Your task to perform on an android device: Open Yahoo.com Image 0: 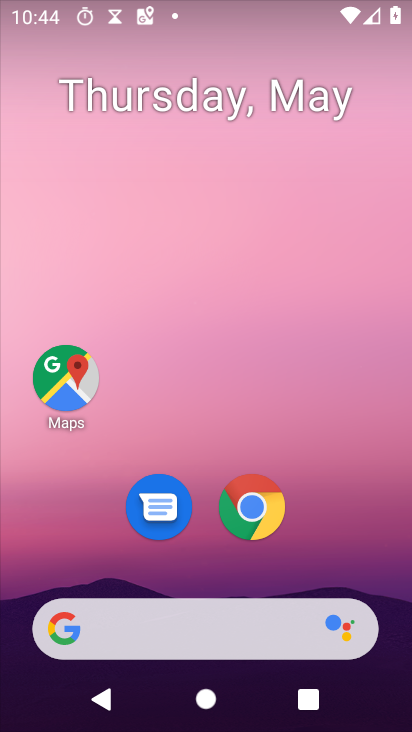
Step 0: click (257, 515)
Your task to perform on an android device: Open Yahoo.com Image 1: 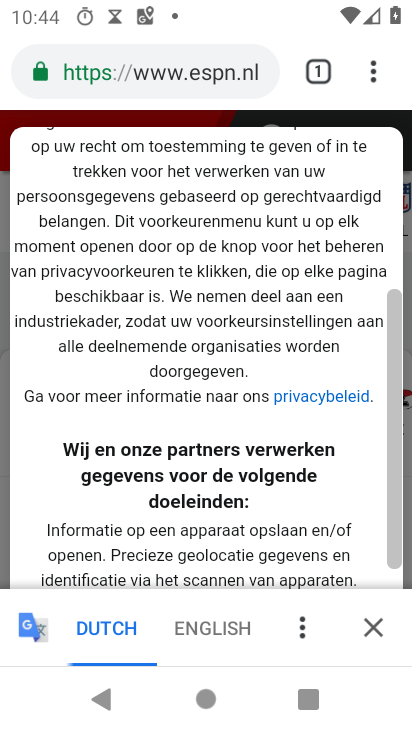
Step 1: click (307, 84)
Your task to perform on an android device: Open Yahoo.com Image 2: 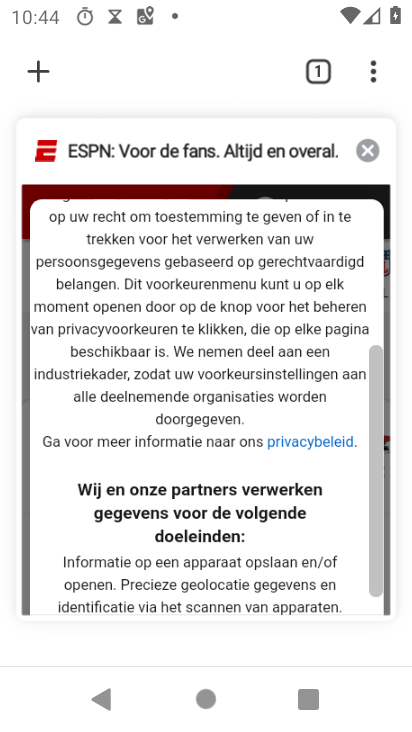
Step 2: click (368, 158)
Your task to perform on an android device: Open Yahoo.com Image 3: 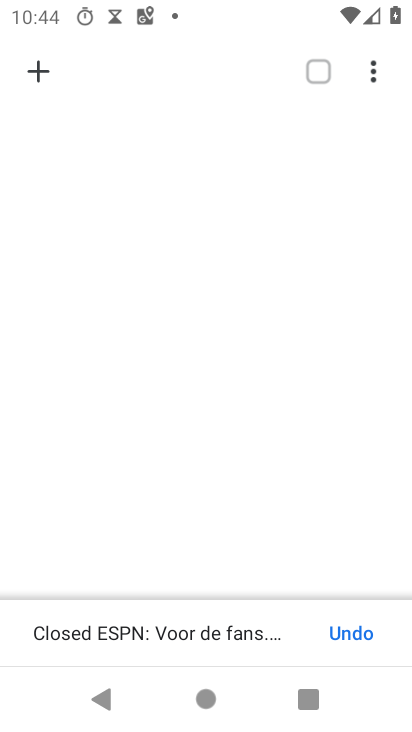
Step 3: click (44, 80)
Your task to perform on an android device: Open Yahoo.com Image 4: 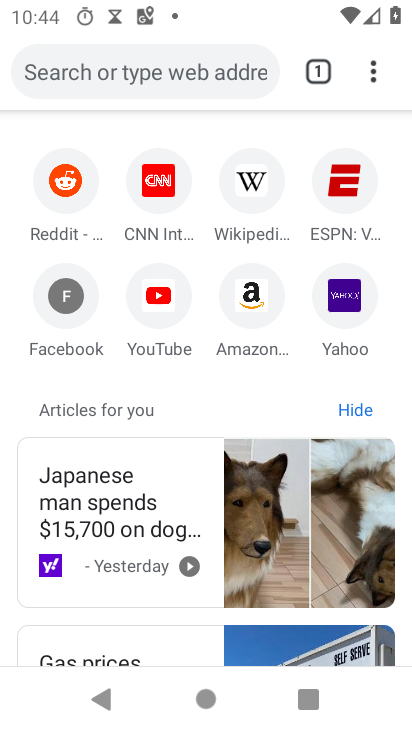
Step 4: click (347, 305)
Your task to perform on an android device: Open Yahoo.com Image 5: 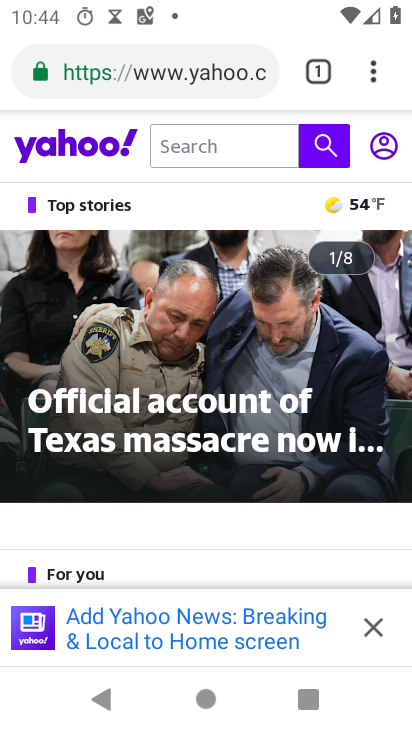
Step 5: task complete